Your task to perform on an android device: What is the recent news? Image 0: 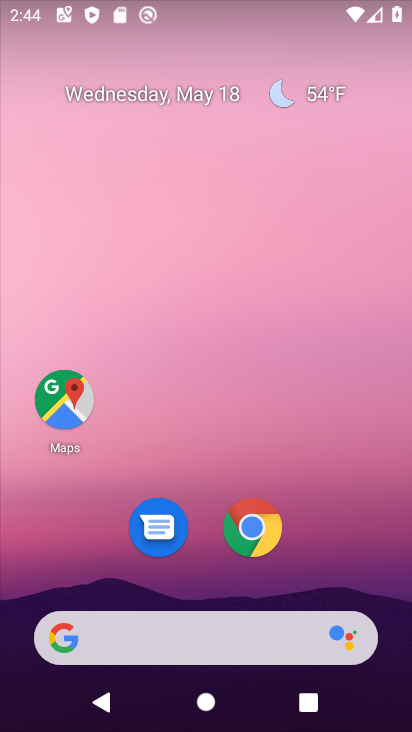
Step 0: click (214, 643)
Your task to perform on an android device: What is the recent news? Image 1: 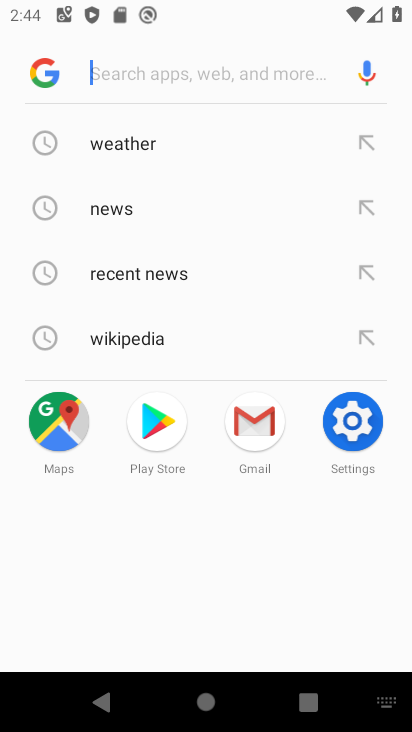
Step 1: click (121, 224)
Your task to perform on an android device: What is the recent news? Image 2: 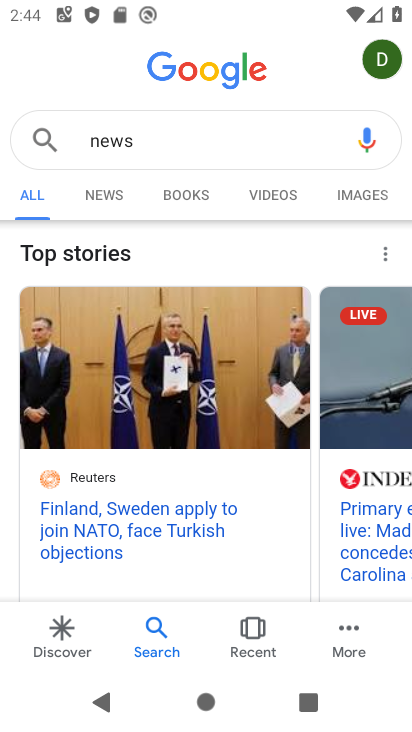
Step 2: task complete